Your task to perform on an android device: Open eBay Image 0: 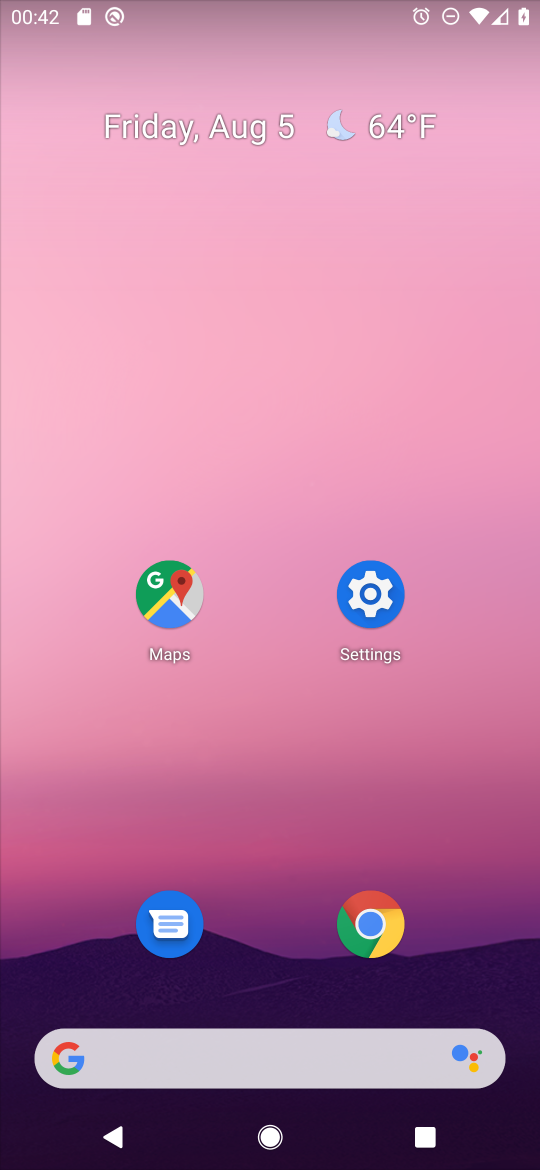
Step 0: press home button
Your task to perform on an android device: Open eBay Image 1: 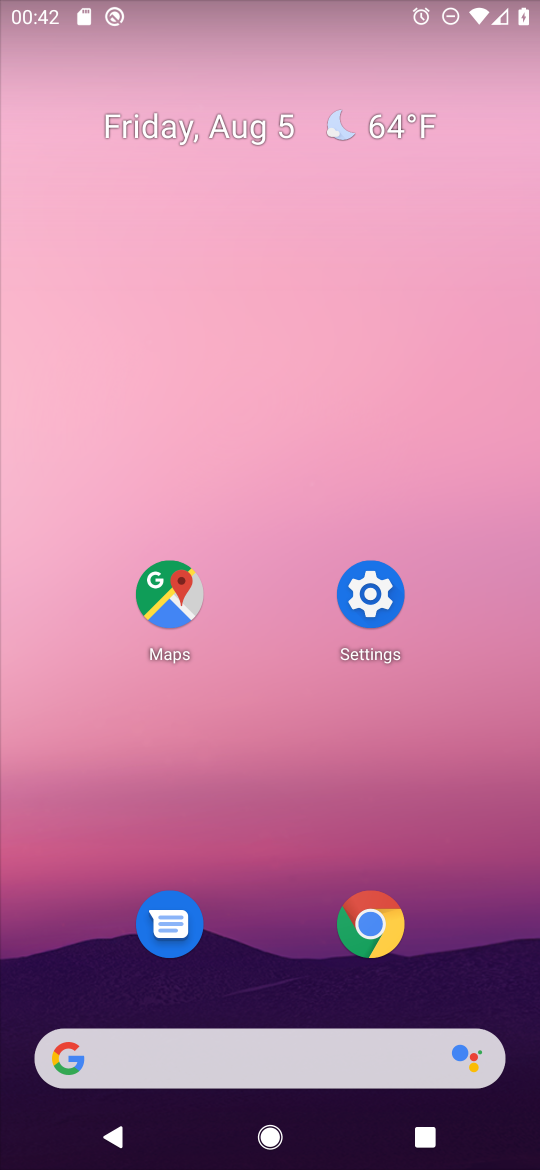
Step 1: click (370, 926)
Your task to perform on an android device: Open eBay Image 2: 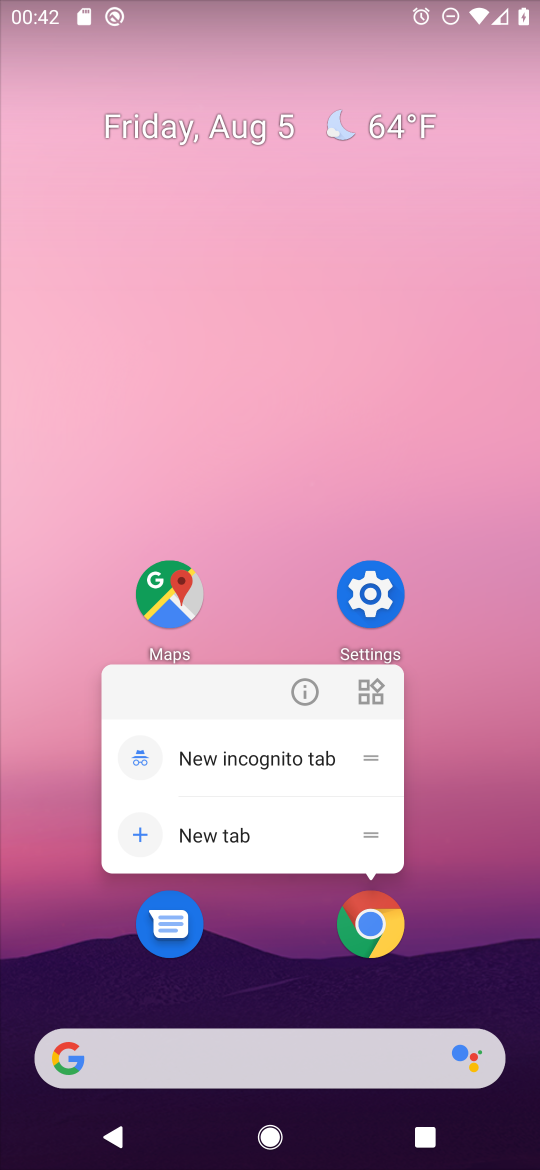
Step 2: click (370, 928)
Your task to perform on an android device: Open eBay Image 3: 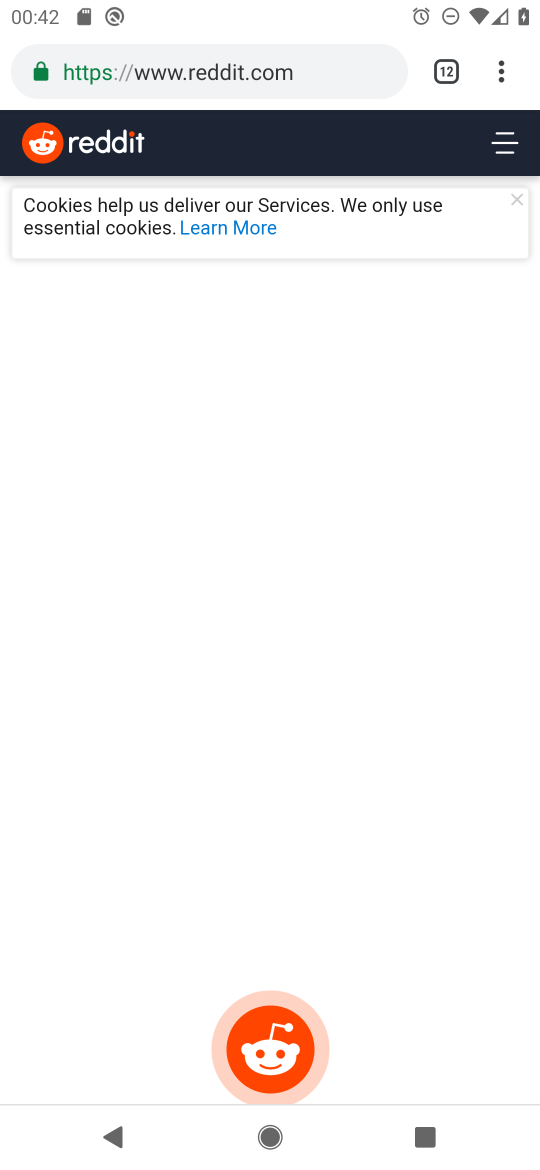
Step 3: drag from (495, 75) to (239, 149)
Your task to perform on an android device: Open eBay Image 4: 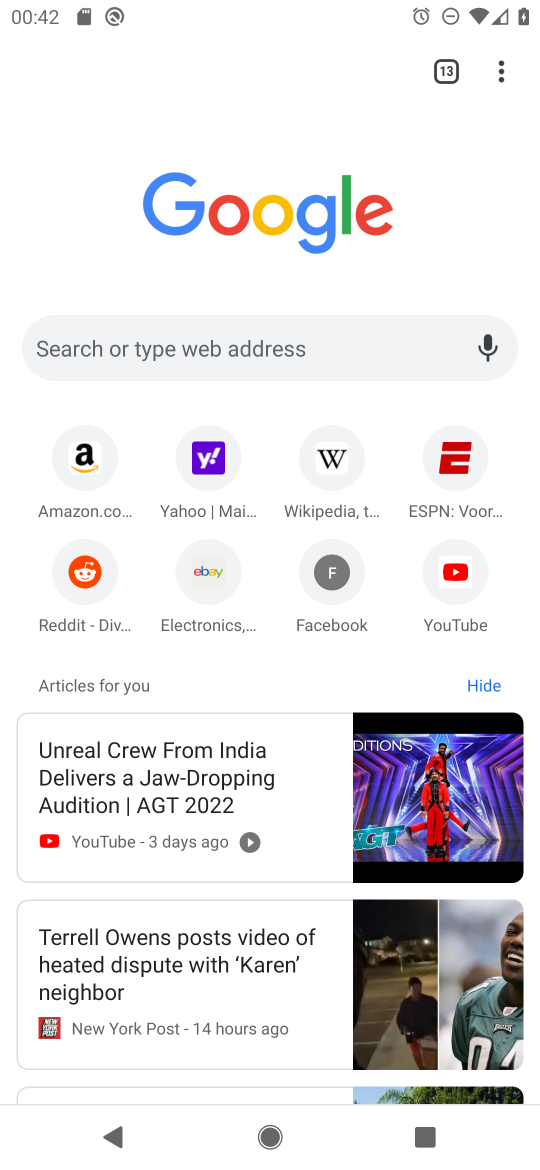
Step 4: click (212, 568)
Your task to perform on an android device: Open eBay Image 5: 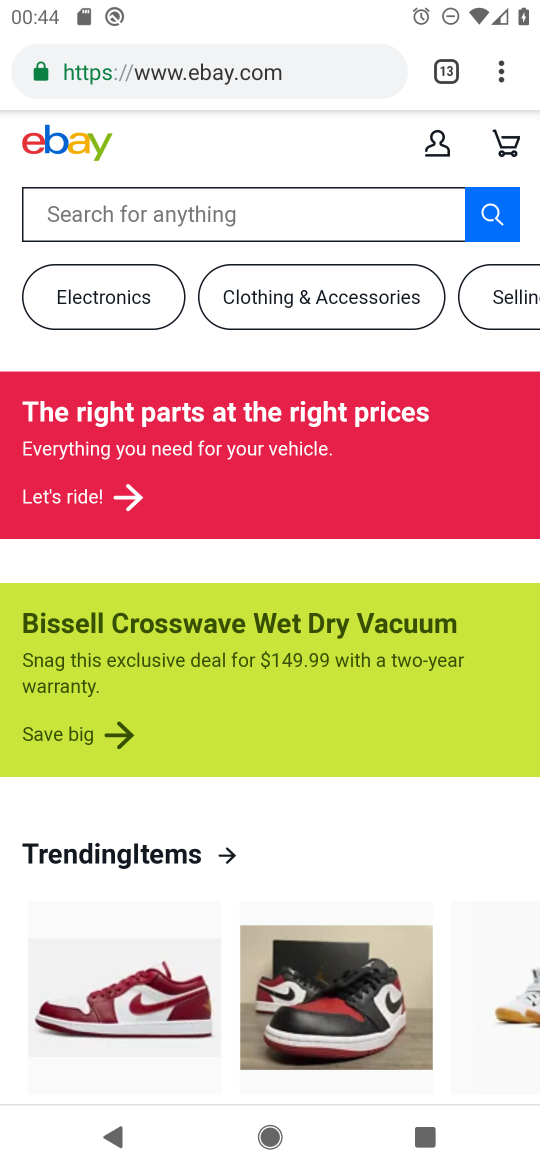
Step 5: task complete